Your task to perform on an android device: View the shopping cart on bestbuy. Add usb-c to usb-a to the cart on bestbuy Image 0: 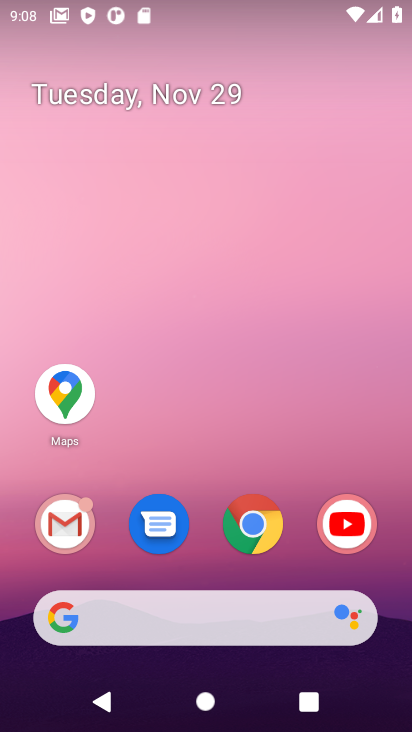
Step 0: click (254, 524)
Your task to perform on an android device: View the shopping cart on bestbuy. Add usb-c to usb-a to the cart on bestbuy Image 1: 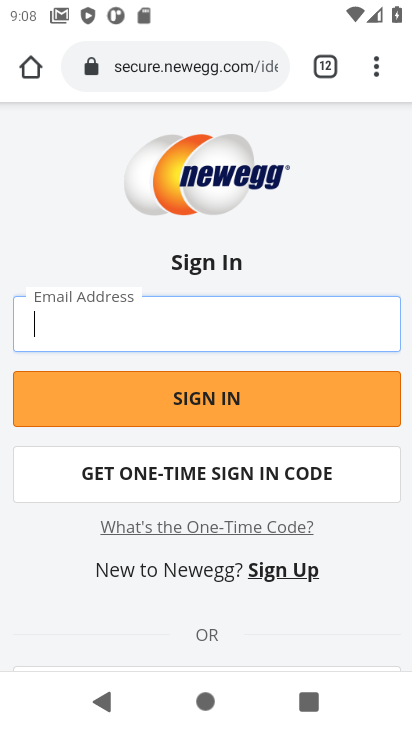
Step 1: click (192, 66)
Your task to perform on an android device: View the shopping cart on bestbuy. Add usb-c to usb-a to the cart on bestbuy Image 2: 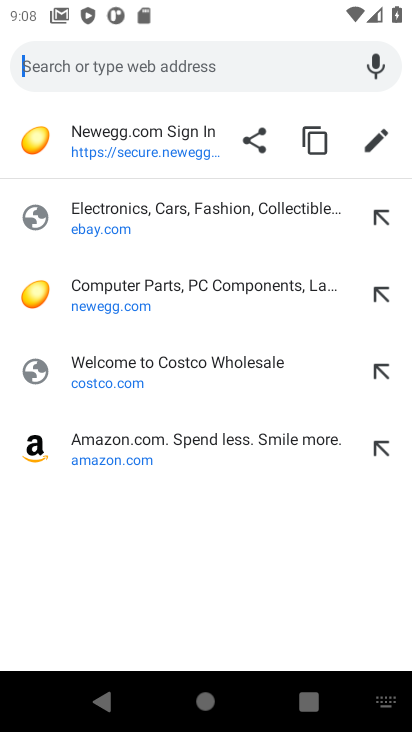
Step 2: type "bestbuy.com"
Your task to perform on an android device: View the shopping cart on bestbuy. Add usb-c to usb-a to the cart on bestbuy Image 3: 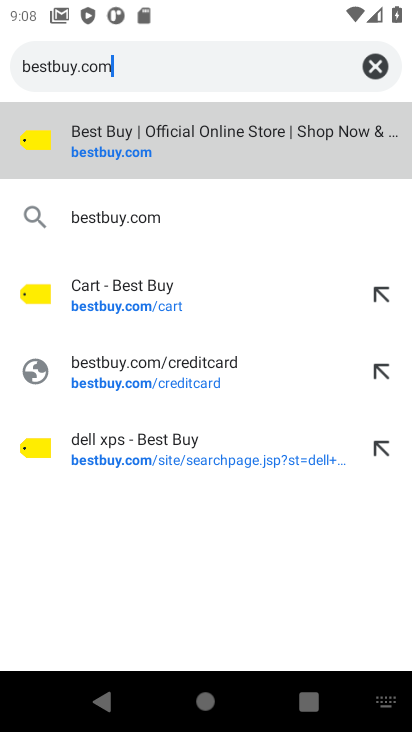
Step 3: click (87, 151)
Your task to perform on an android device: View the shopping cart on bestbuy. Add usb-c to usb-a to the cart on bestbuy Image 4: 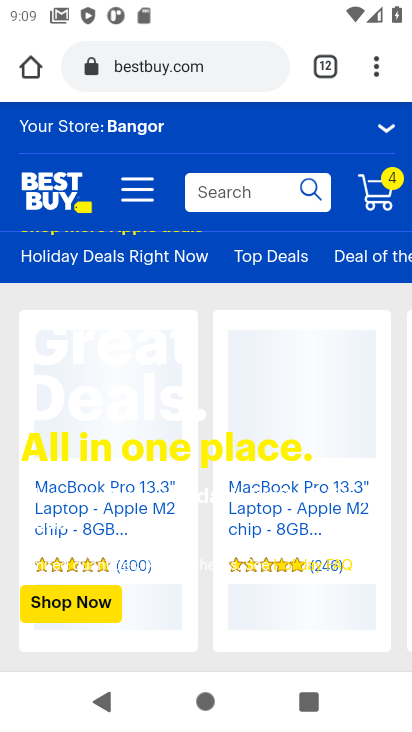
Step 4: click (380, 182)
Your task to perform on an android device: View the shopping cart on bestbuy. Add usb-c to usb-a to the cart on bestbuy Image 5: 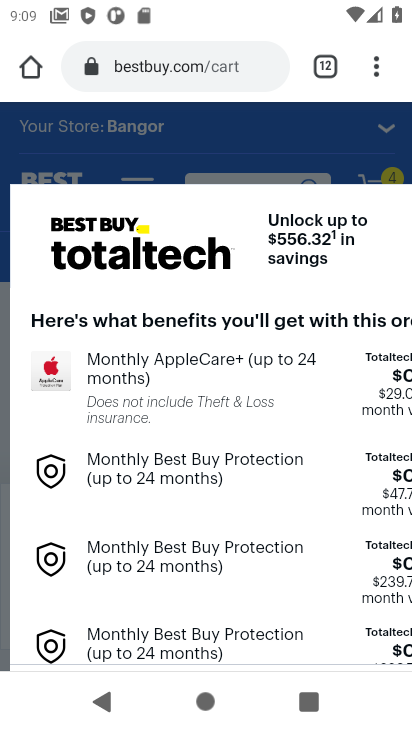
Step 5: click (330, 155)
Your task to perform on an android device: View the shopping cart on bestbuy. Add usb-c to usb-a to the cart on bestbuy Image 6: 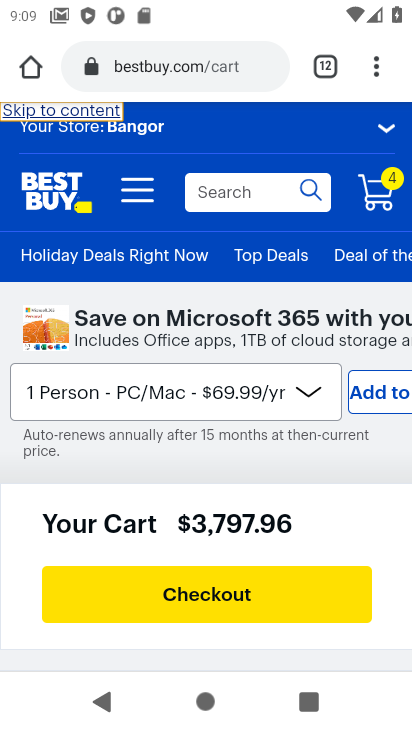
Step 6: drag from (271, 554) to (287, 217)
Your task to perform on an android device: View the shopping cart on bestbuy. Add usb-c to usb-a to the cart on bestbuy Image 7: 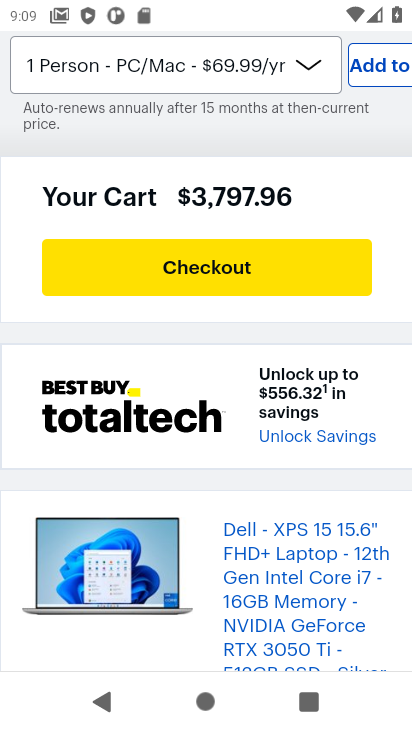
Step 7: drag from (268, 578) to (284, 239)
Your task to perform on an android device: View the shopping cart on bestbuy. Add usb-c to usb-a to the cart on bestbuy Image 8: 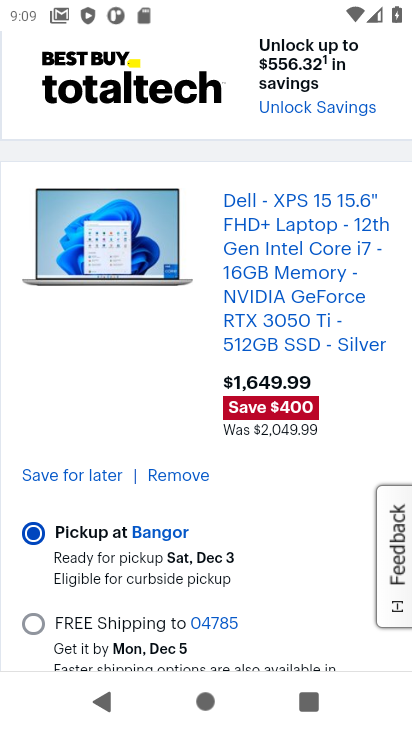
Step 8: drag from (197, 222) to (227, 578)
Your task to perform on an android device: View the shopping cart on bestbuy. Add usb-c to usb-a to the cart on bestbuy Image 9: 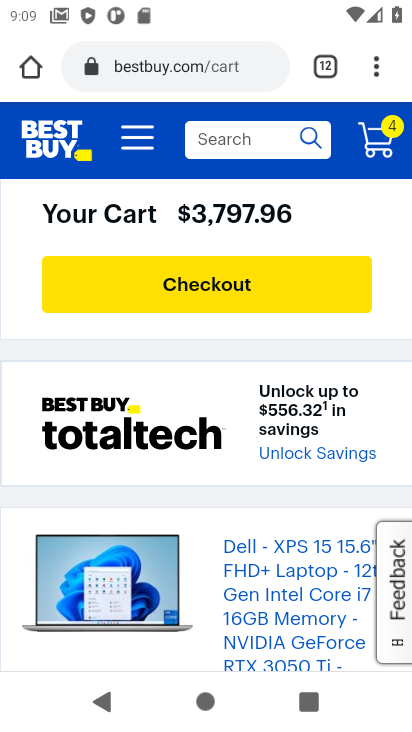
Step 9: click (220, 147)
Your task to perform on an android device: View the shopping cart on bestbuy. Add usb-c to usb-a to the cart on bestbuy Image 10: 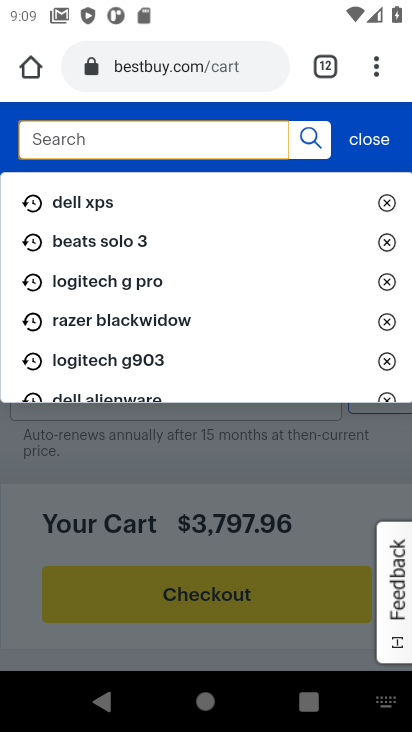
Step 10: type "usb-c to usb-a"
Your task to perform on an android device: View the shopping cart on bestbuy. Add usb-c to usb-a to the cart on bestbuy Image 11: 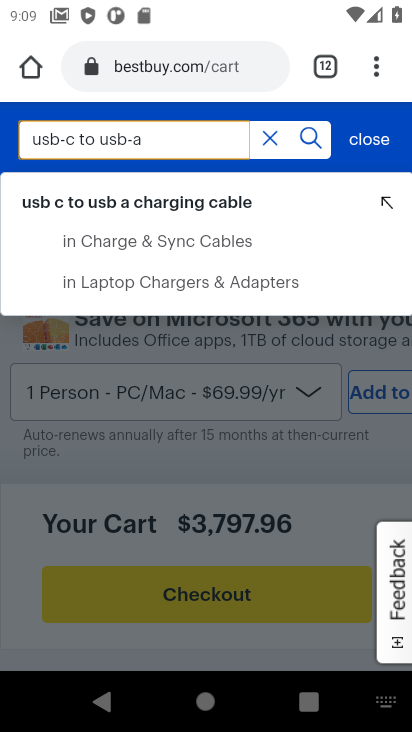
Step 11: click (315, 135)
Your task to perform on an android device: View the shopping cart on bestbuy. Add usb-c to usb-a to the cart on bestbuy Image 12: 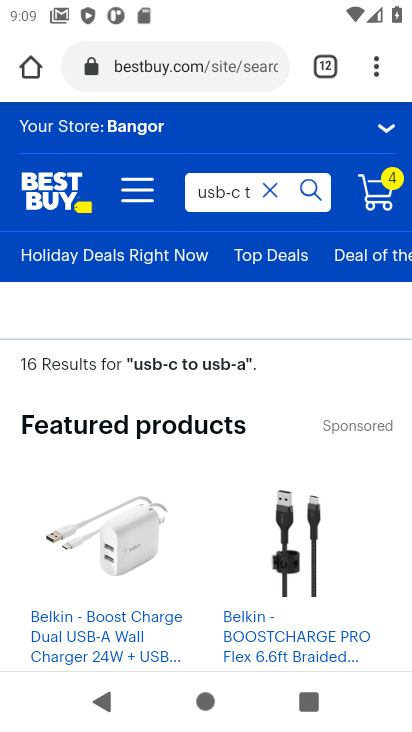
Step 12: drag from (187, 486) to (211, 175)
Your task to perform on an android device: View the shopping cart on bestbuy. Add usb-c to usb-a to the cart on bestbuy Image 13: 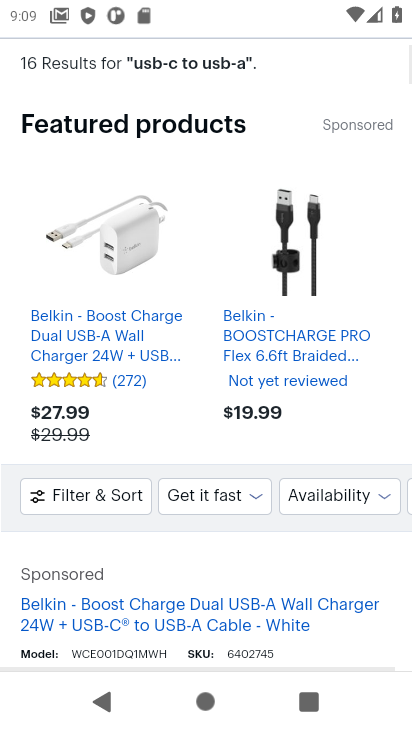
Step 13: drag from (181, 476) to (181, 222)
Your task to perform on an android device: View the shopping cart on bestbuy. Add usb-c to usb-a to the cart on bestbuy Image 14: 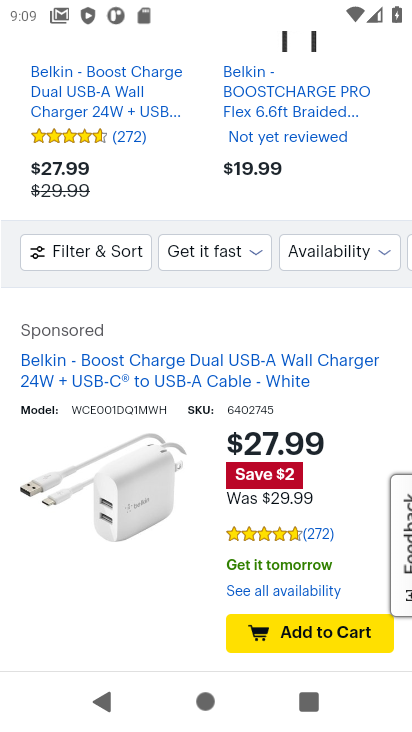
Step 14: click (285, 622)
Your task to perform on an android device: View the shopping cart on bestbuy. Add usb-c to usb-a to the cart on bestbuy Image 15: 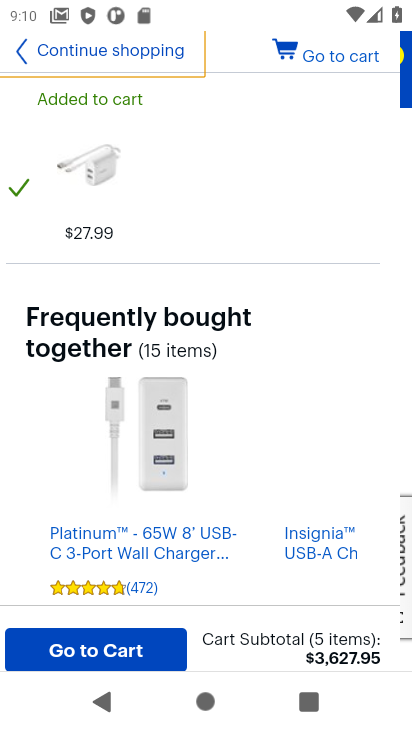
Step 15: task complete